Your task to perform on an android device: When is my next meeting? Image 0: 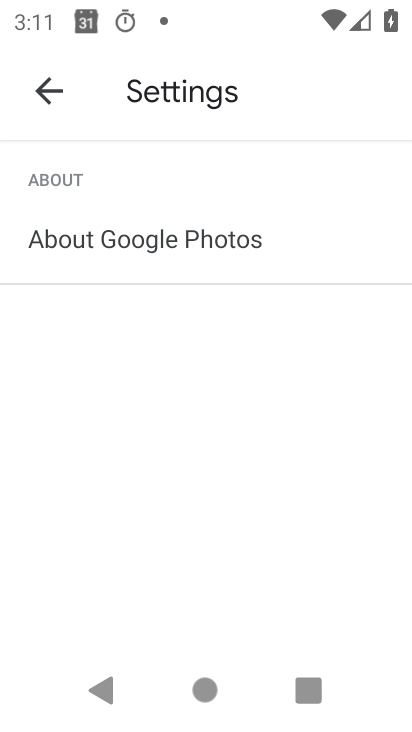
Step 0: press home button
Your task to perform on an android device: When is my next meeting? Image 1: 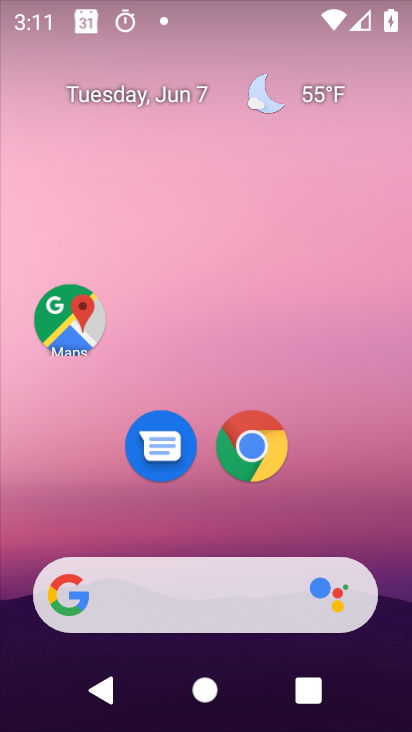
Step 1: drag from (215, 547) to (248, 56)
Your task to perform on an android device: When is my next meeting? Image 2: 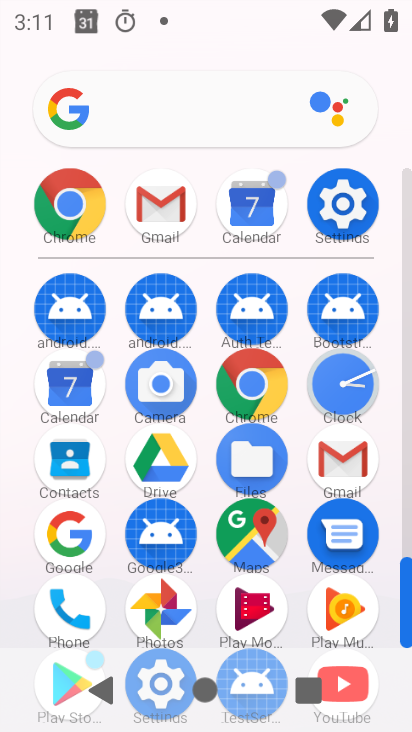
Step 2: click (73, 400)
Your task to perform on an android device: When is my next meeting? Image 3: 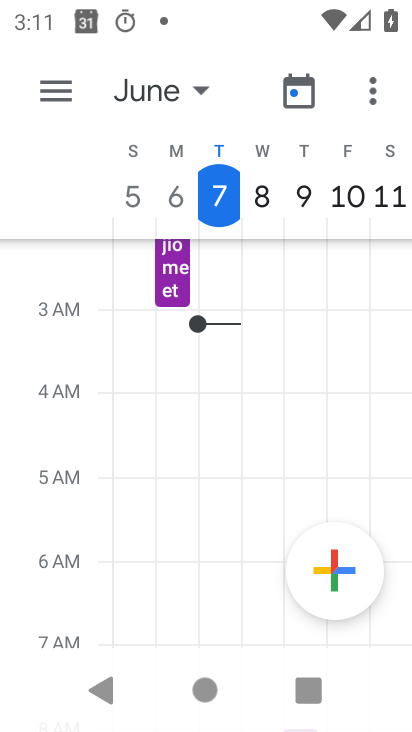
Step 3: click (50, 89)
Your task to perform on an android device: When is my next meeting? Image 4: 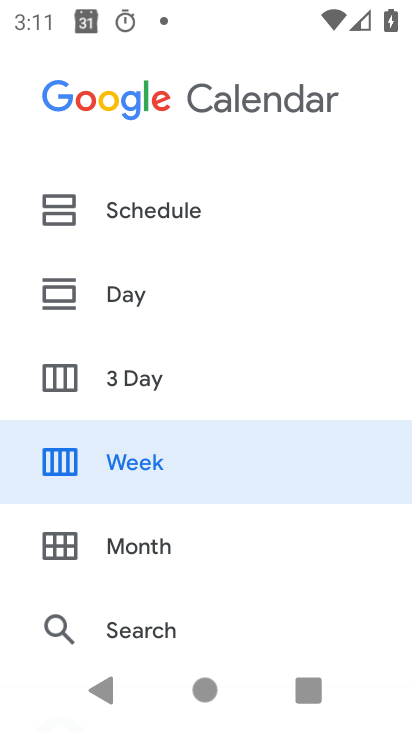
Step 4: drag from (178, 475) to (225, 227)
Your task to perform on an android device: When is my next meeting? Image 5: 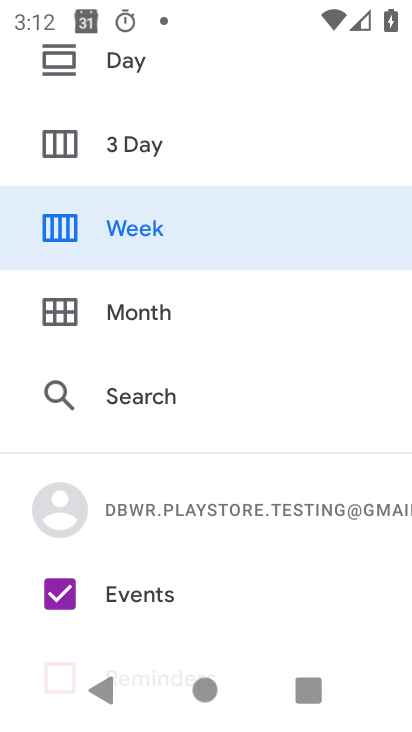
Step 5: drag from (161, 504) to (203, 247)
Your task to perform on an android device: When is my next meeting? Image 6: 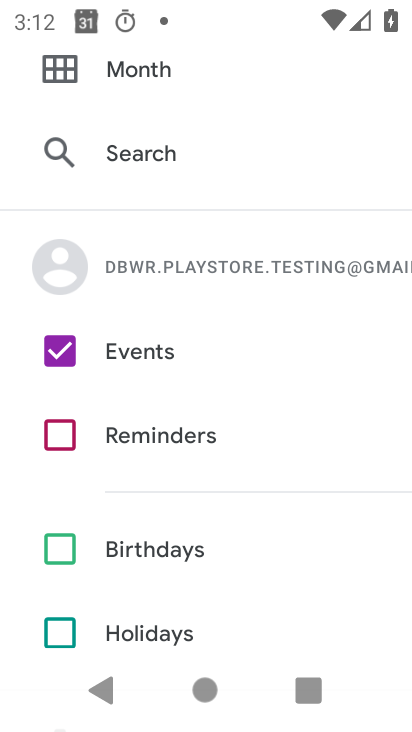
Step 6: click (120, 448)
Your task to perform on an android device: When is my next meeting? Image 7: 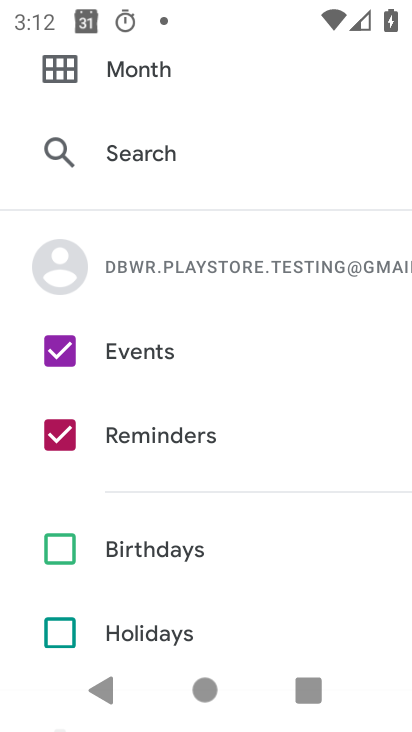
Step 7: drag from (184, 277) to (125, 687)
Your task to perform on an android device: When is my next meeting? Image 8: 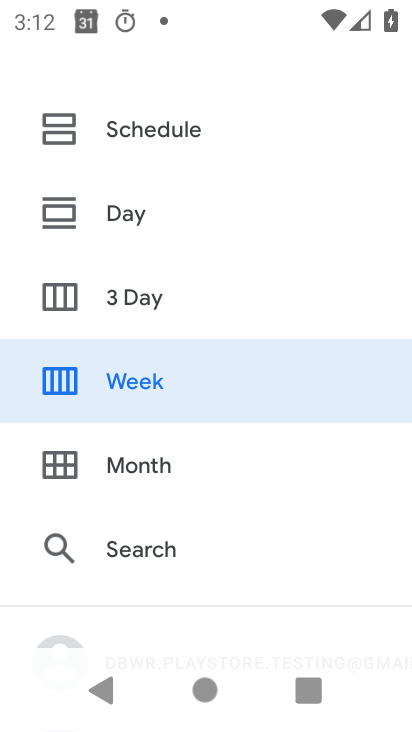
Step 8: click (129, 130)
Your task to perform on an android device: When is my next meeting? Image 9: 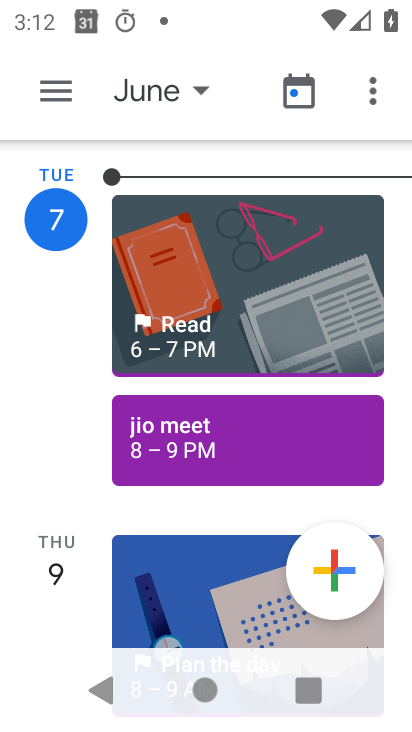
Step 9: click (192, 459)
Your task to perform on an android device: When is my next meeting? Image 10: 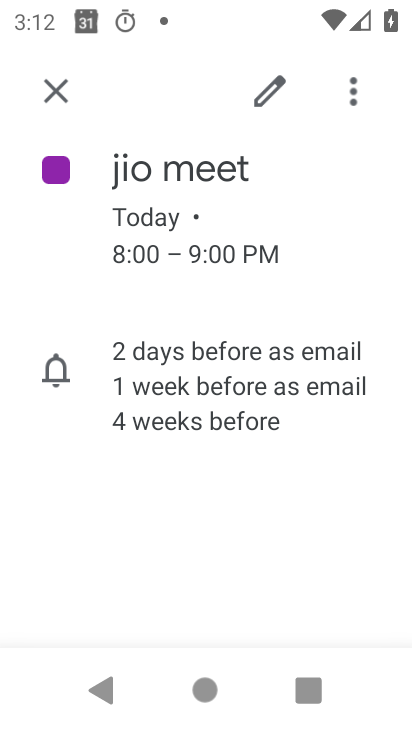
Step 10: task complete